Your task to perform on an android device: Go to Wikipedia Image 0: 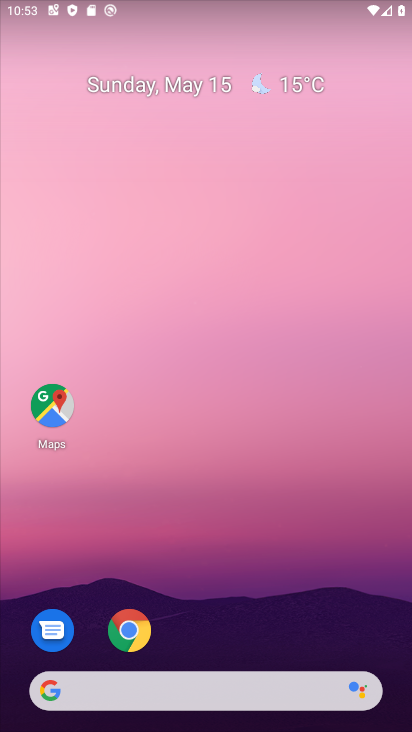
Step 0: click (129, 629)
Your task to perform on an android device: Go to Wikipedia Image 1: 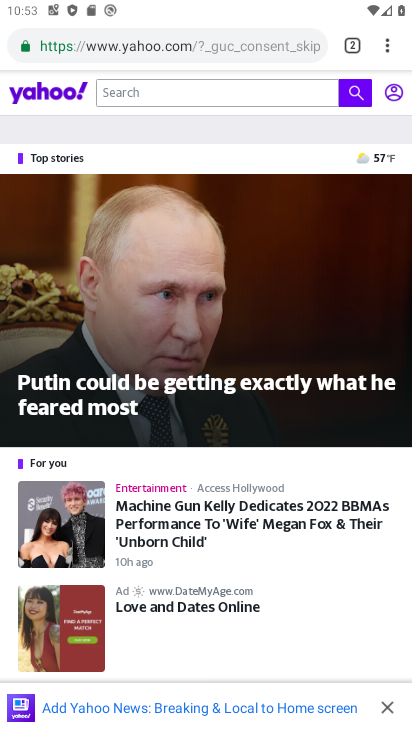
Step 1: click (386, 50)
Your task to perform on an android device: Go to Wikipedia Image 2: 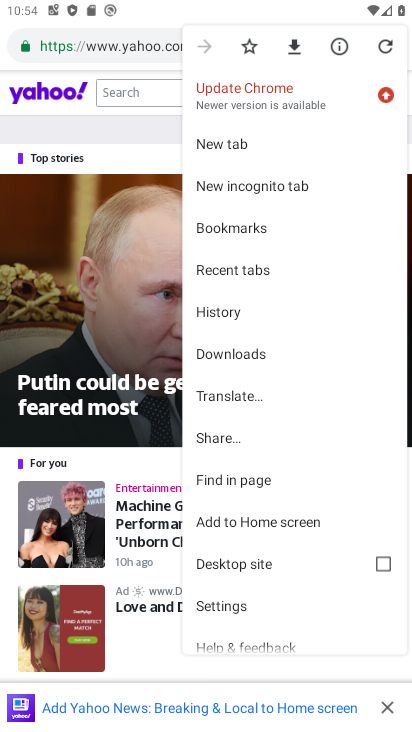
Step 2: click (211, 145)
Your task to perform on an android device: Go to Wikipedia Image 3: 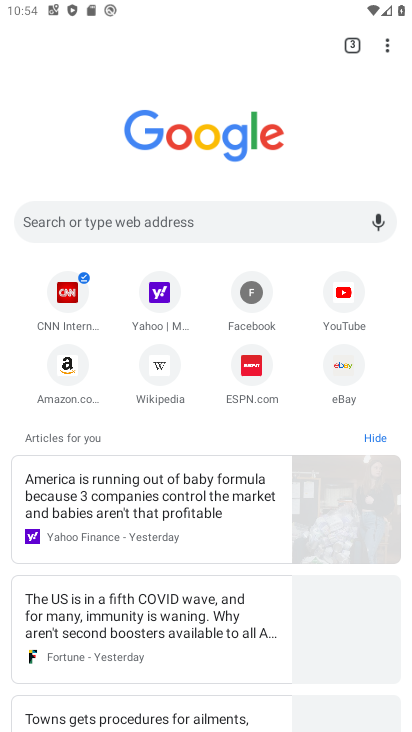
Step 3: click (214, 152)
Your task to perform on an android device: Go to Wikipedia Image 4: 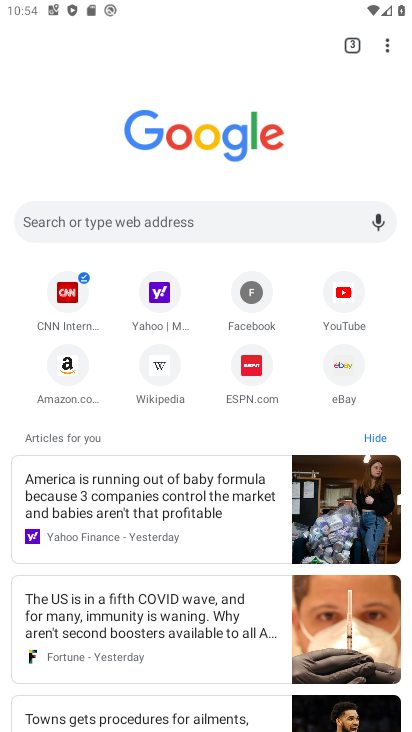
Step 4: click (162, 365)
Your task to perform on an android device: Go to Wikipedia Image 5: 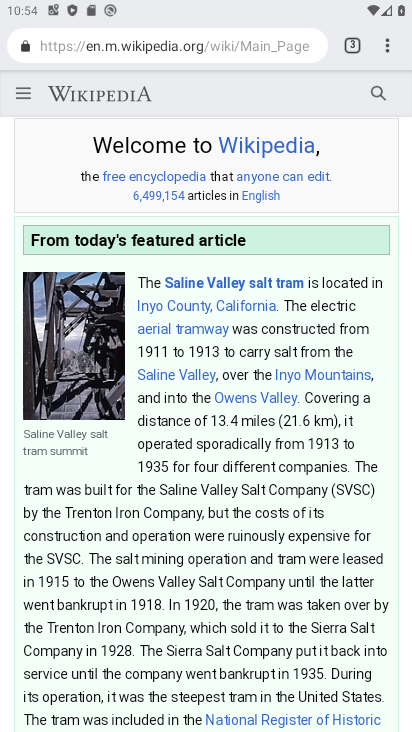
Step 5: task complete